Your task to perform on an android device: find snoozed emails in the gmail app Image 0: 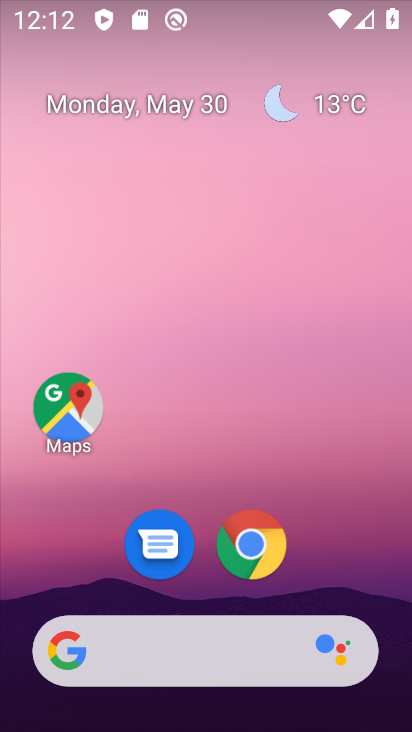
Step 0: drag from (354, 596) to (237, 88)
Your task to perform on an android device: find snoozed emails in the gmail app Image 1: 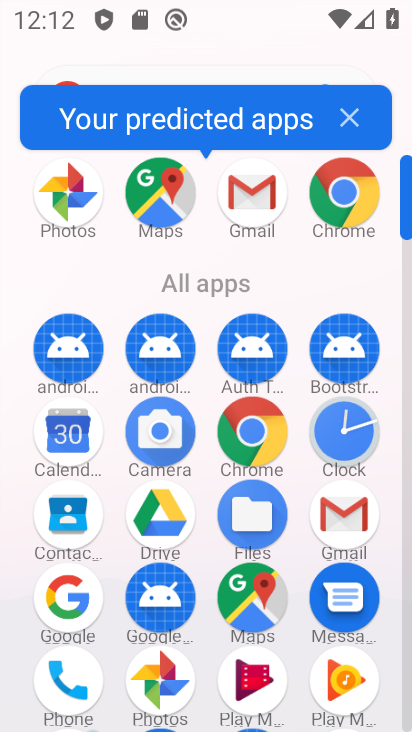
Step 1: click (251, 190)
Your task to perform on an android device: find snoozed emails in the gmail app Image 2: 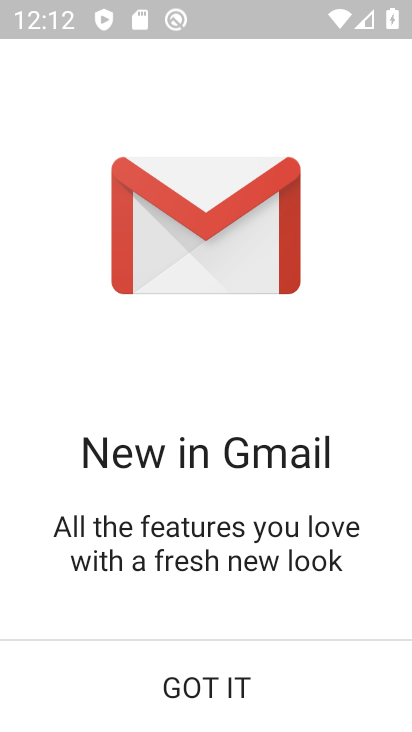
Step 2: click (232, 696)
Your task to perform on an android device: find snoozed emails in the gmail app Image 3: 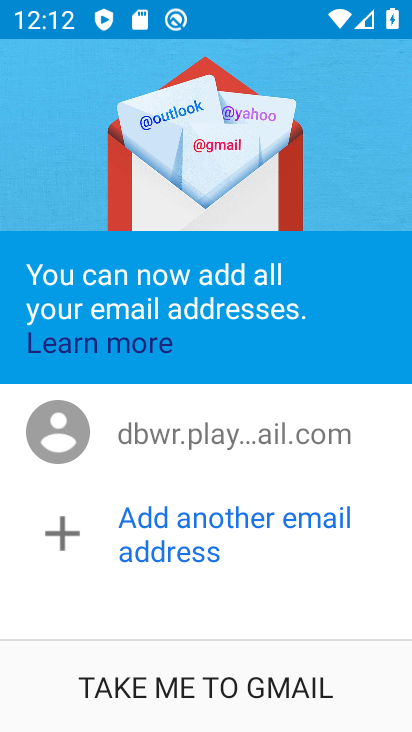
Step 3: click (167, 708)
Your task to perform on an android device: find snoozed emails in the gmail app Image 4: 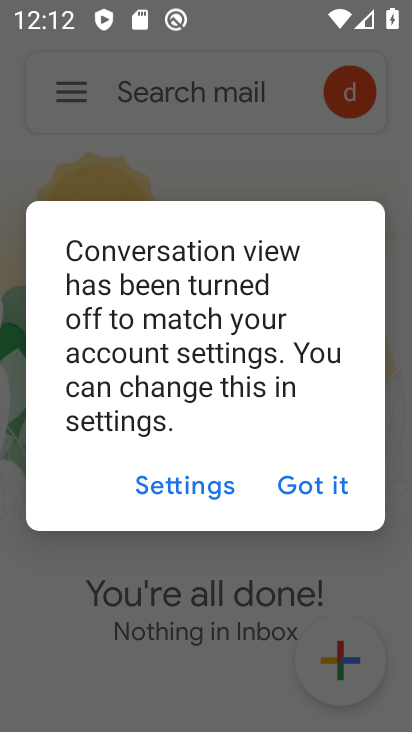
Step 4: click (287, 507)
Your task to perform on an android device: find snoozed emails in the gmail app Image 5: 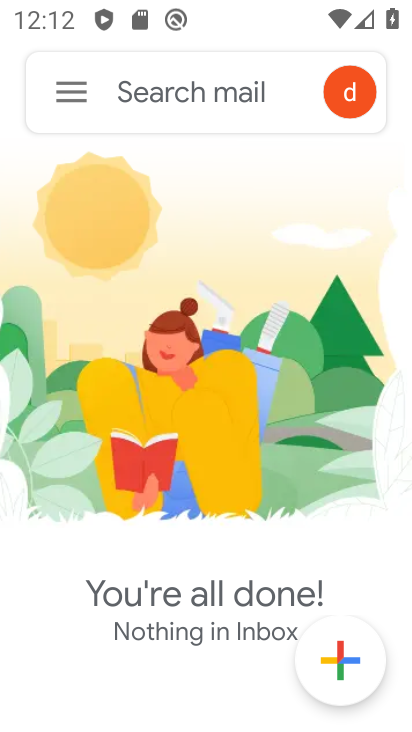
Step 5: task complete